Your task to perform on an android device: Go to eBay Image 0: 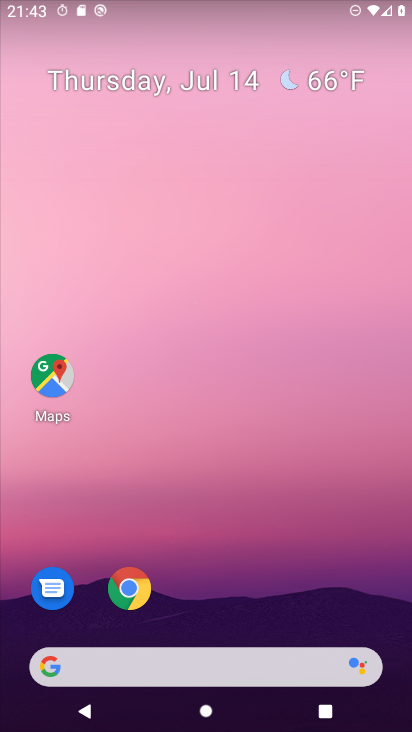
Step 0: drag from (360, 600) to (350, 105)
Your task to perform on an android device: Go to eBay Image 1: 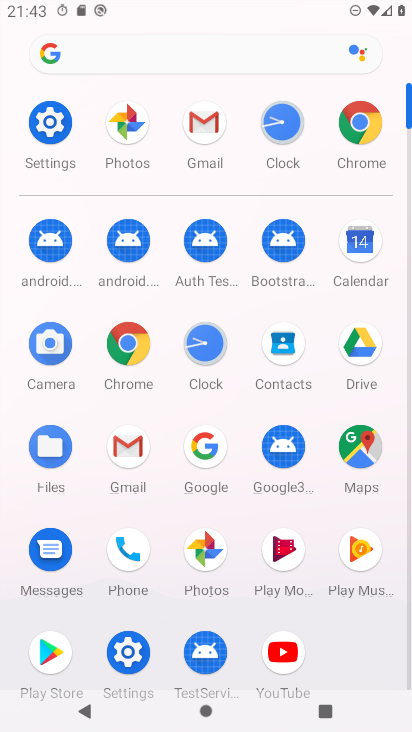
Step 1: click (136, 343)
Your task to perform on an android device: Go to eBay Image 2: 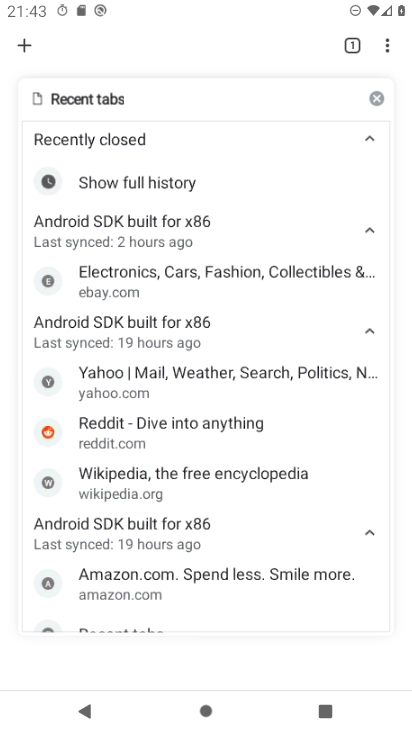
Step 2: press back button
Your task to perform on an android device: Go to eBay Image 3: 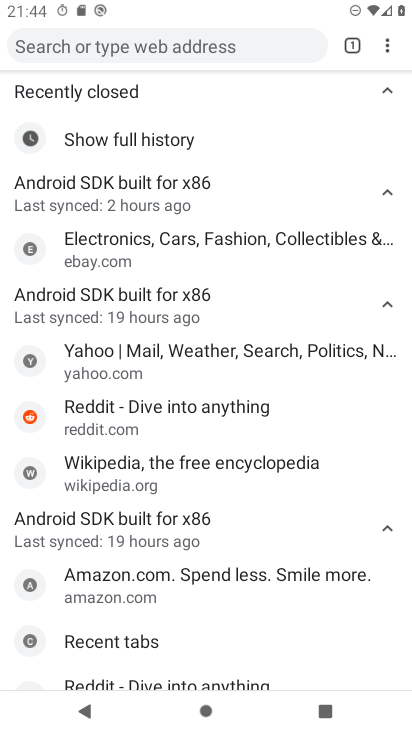
Step 3: click (214, 43)
Your task to perform on an android device: Go to eBay Image 4: 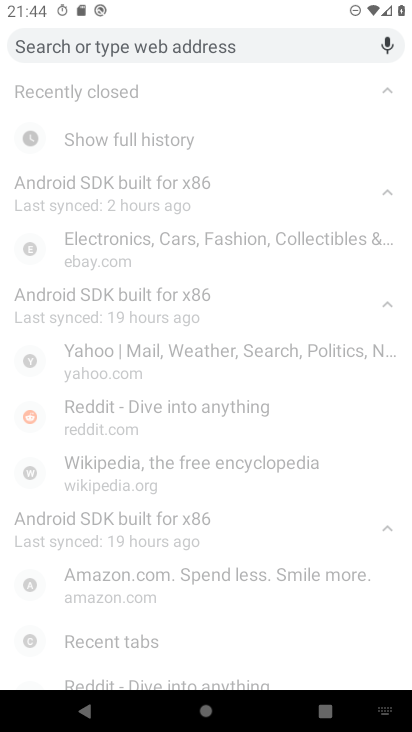
Step 4: type "ebay"
Your task to perform on an android device: Go to eBay Image 5: 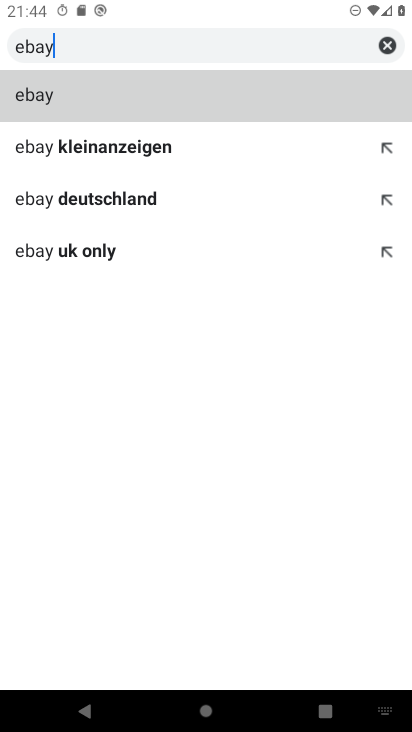
Step 5: click (143, 92)
Your task to perform on an android device: Go to eBay Image 6: 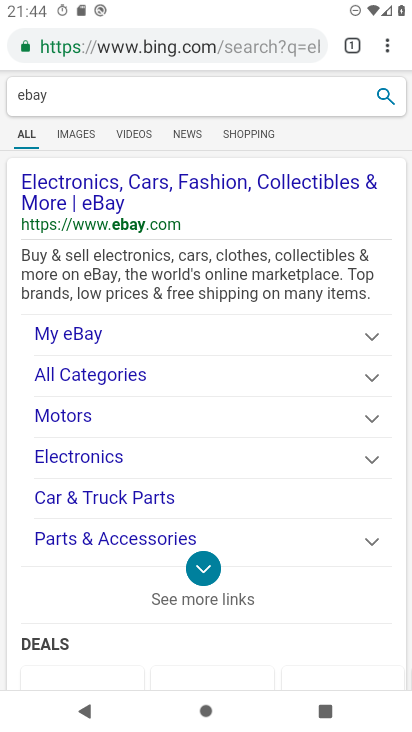
Step 6: task complete